Your task to perform on an android device: install app "Skype" Image 0: 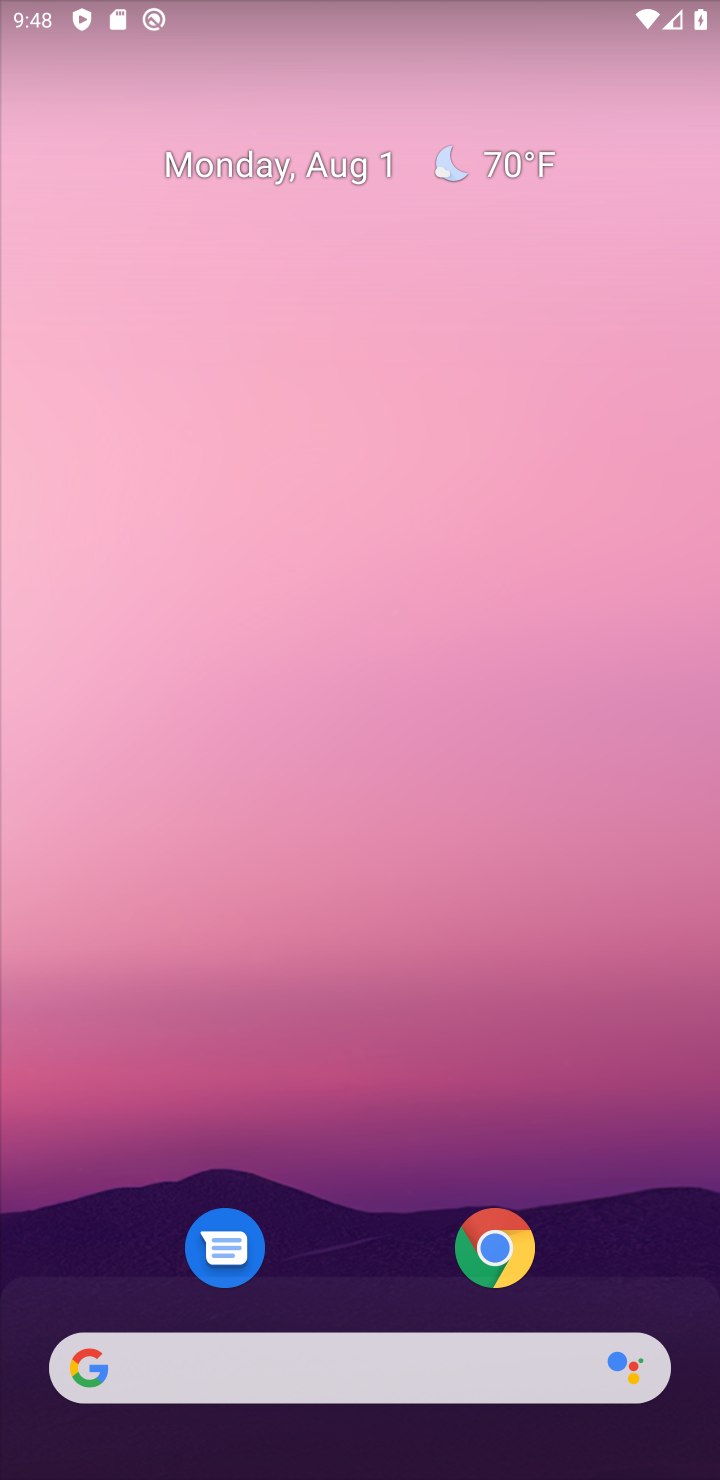
Step 0: drag from (636, 897) to (674, 122)
Your task to perform on an android device: install app "Skype" Image 1: 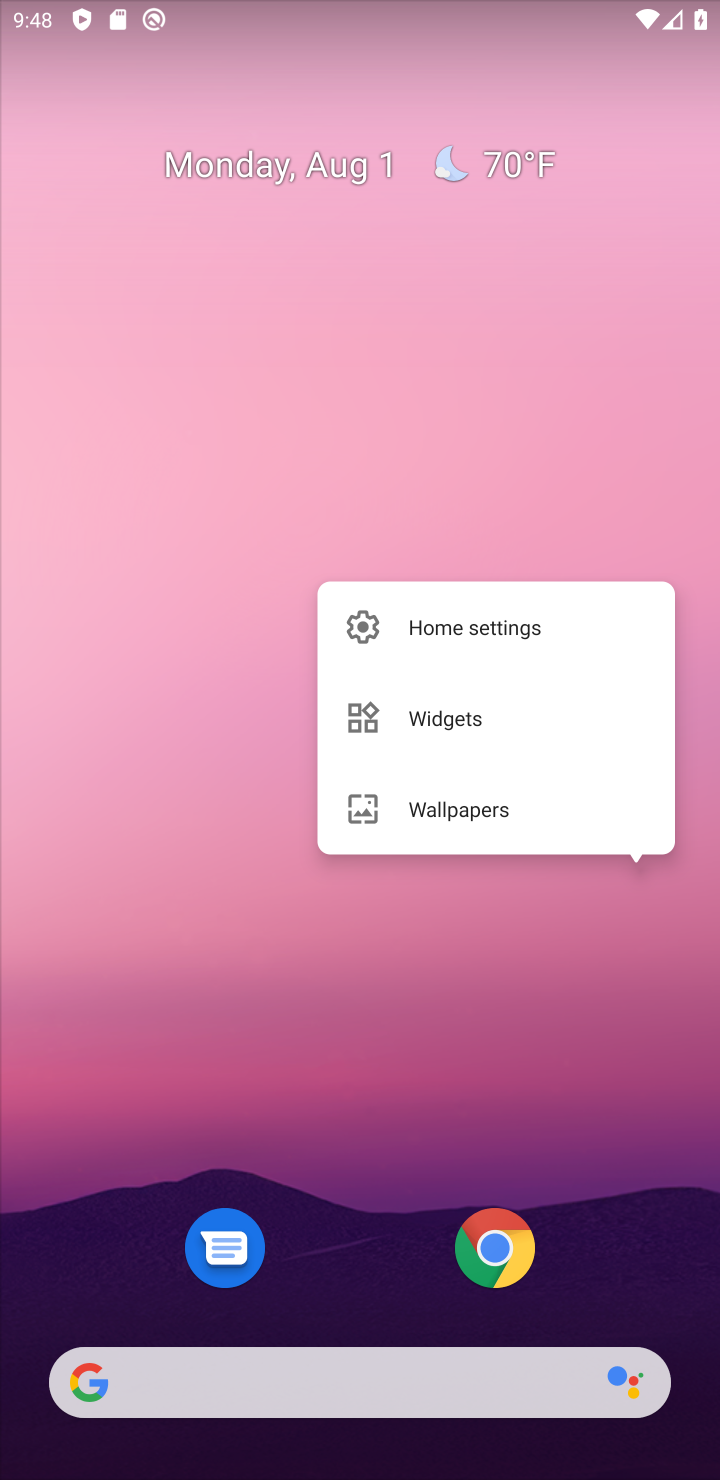
Step 1: click (386, 1189)
Your task to perform on an android device: install app "Skype" Image 2: 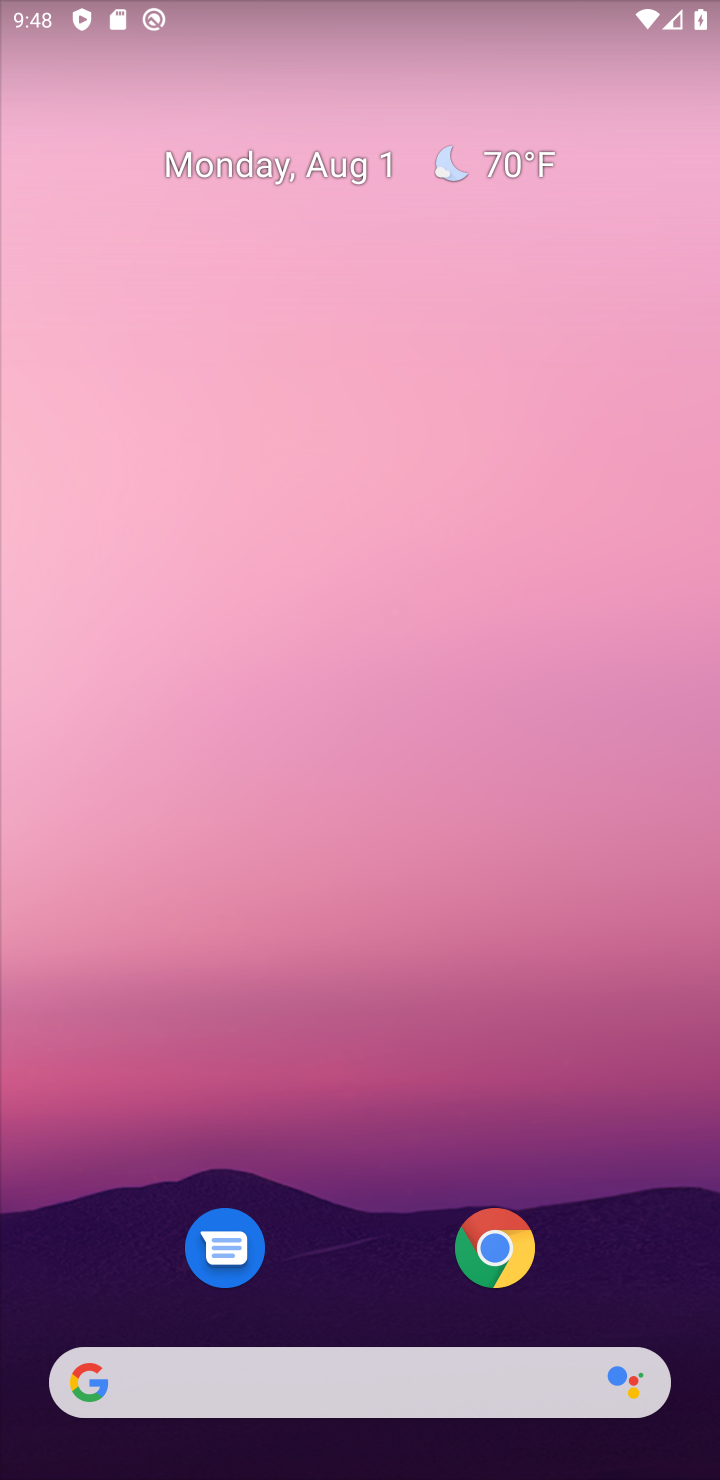
Step 2: drag from (341, 1301) to (580, 98)
Your task to perform on an android device: install app "Skype" Image 3: 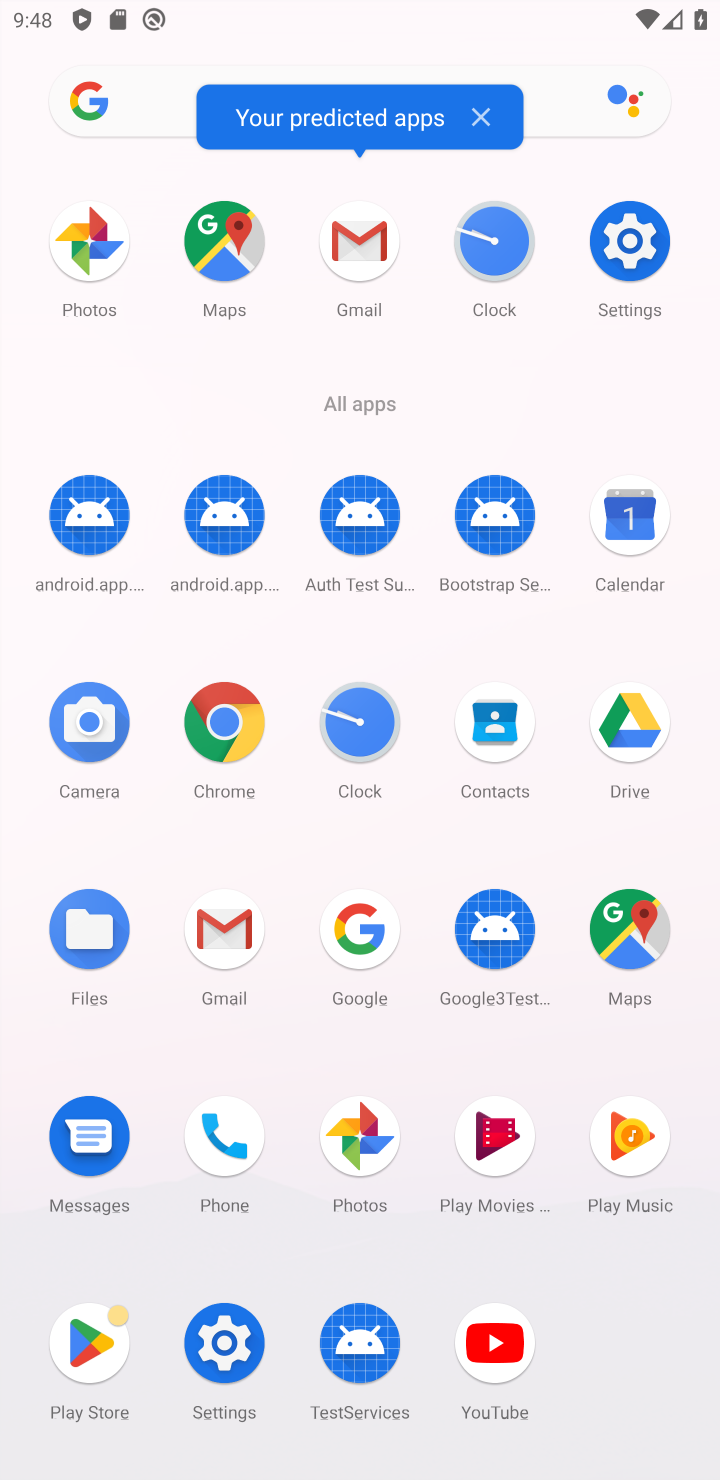
Step 3: click (74, 1334)
Your task to perform on an android device: install app "Skype" Image 4: 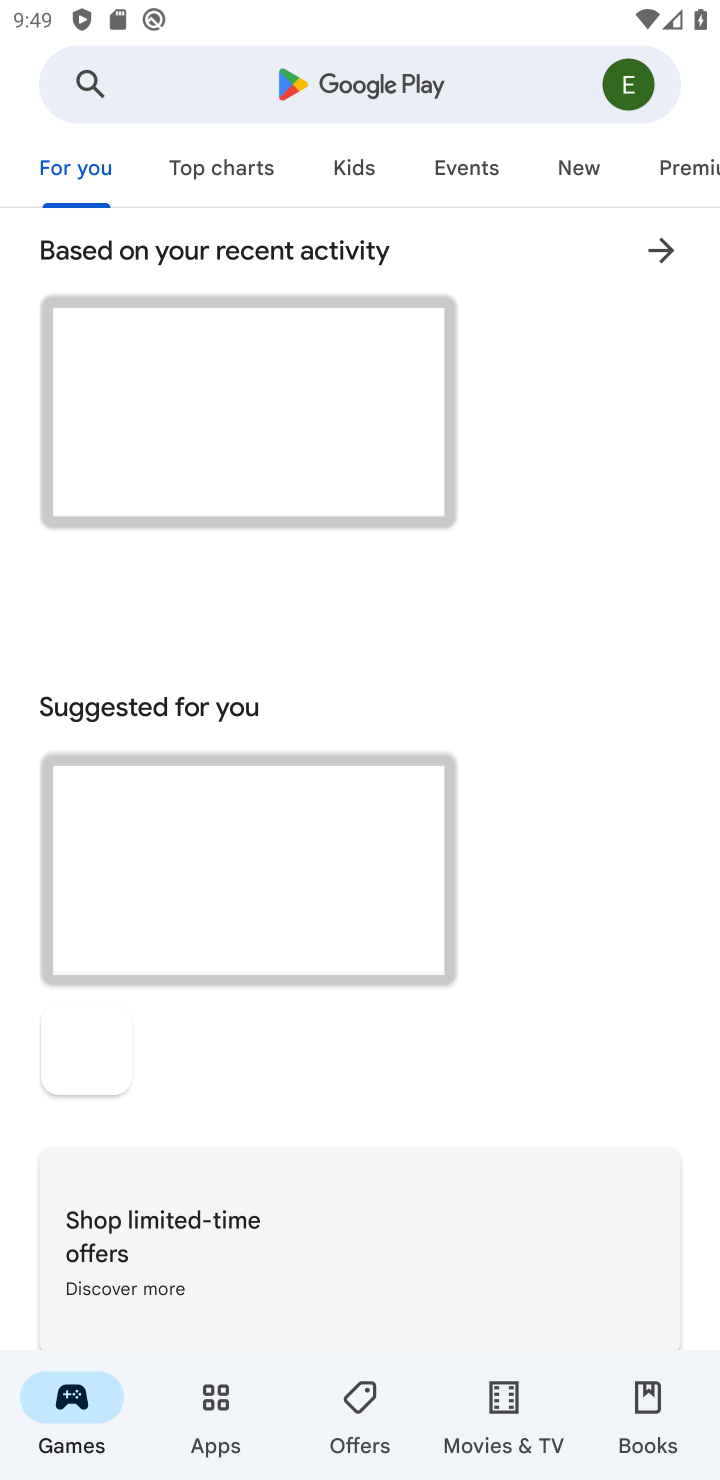
Step 4: click (469, 87)
Your task to perform on an android device: install app "Skype" Image 5: 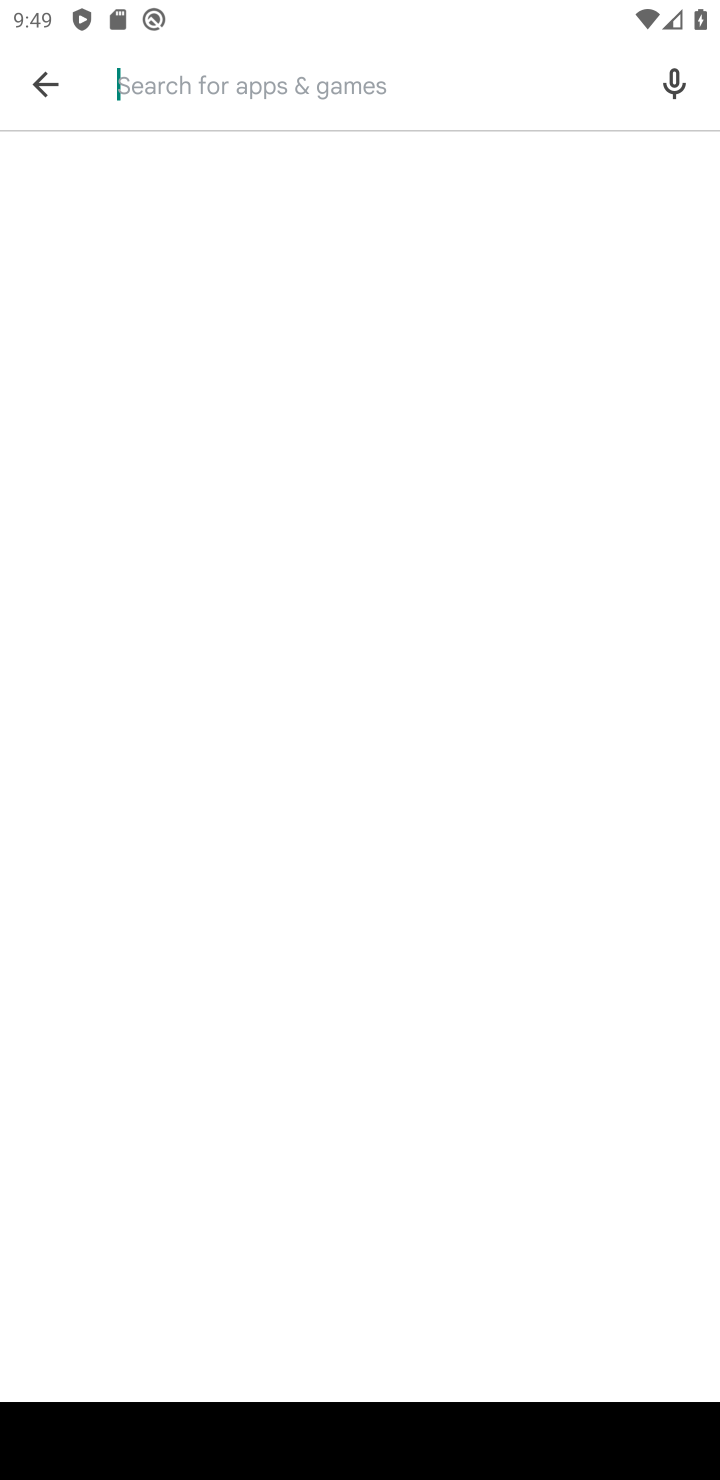
Step 5: type "Skype"
Your task to perform on an android device: install app "Skype" Image 6: 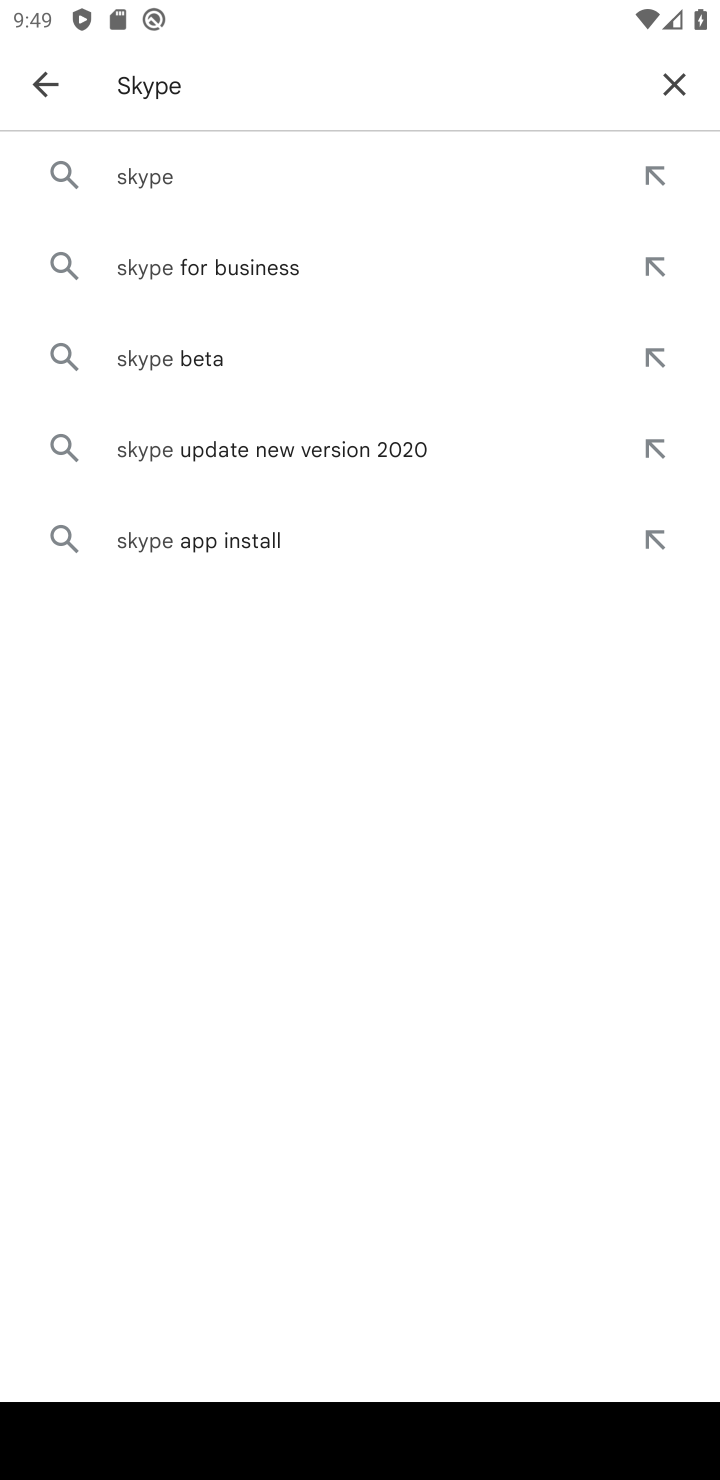
Step 6: click (341, 171)
Your task to perform on an android device: install app "Skype" Image 7: 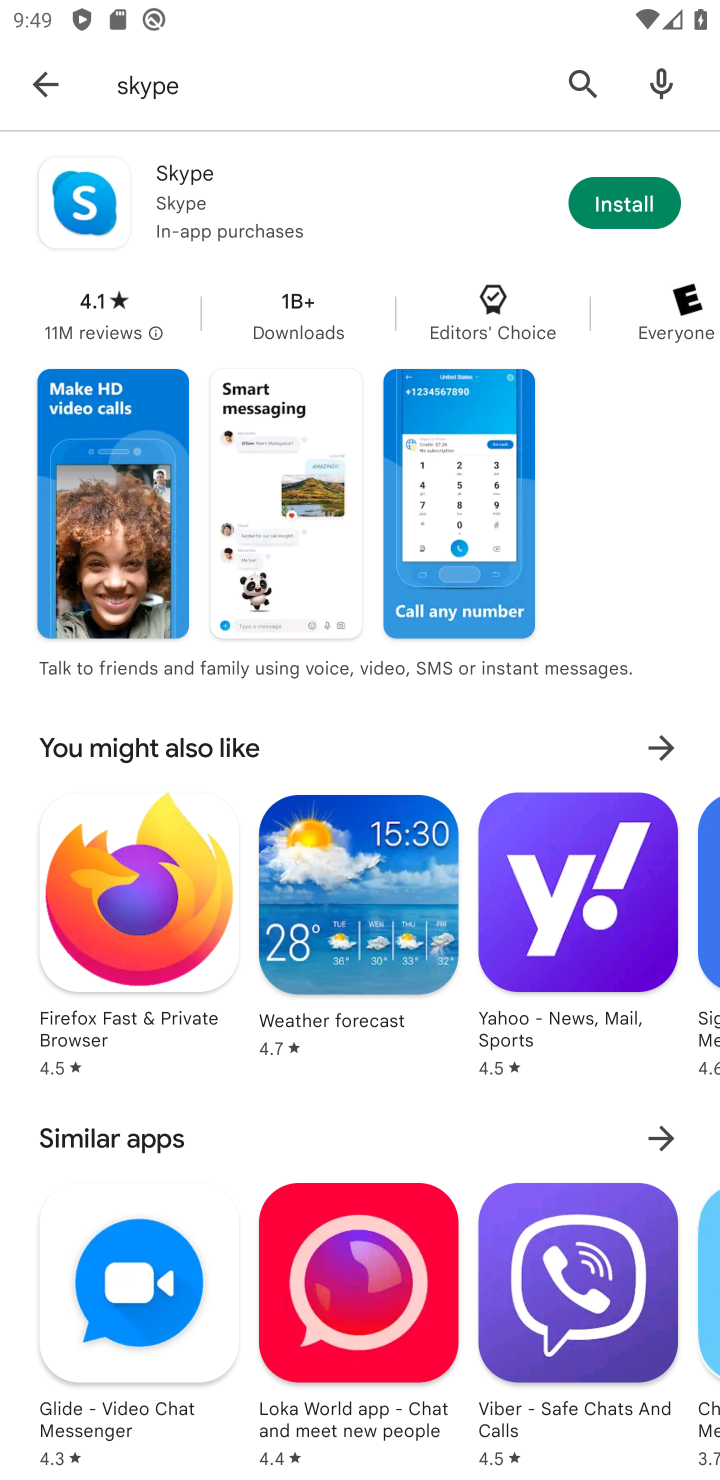
Step 7: click (640, 202)
Your task to perform on an android device: install app "Skype" Image 8: 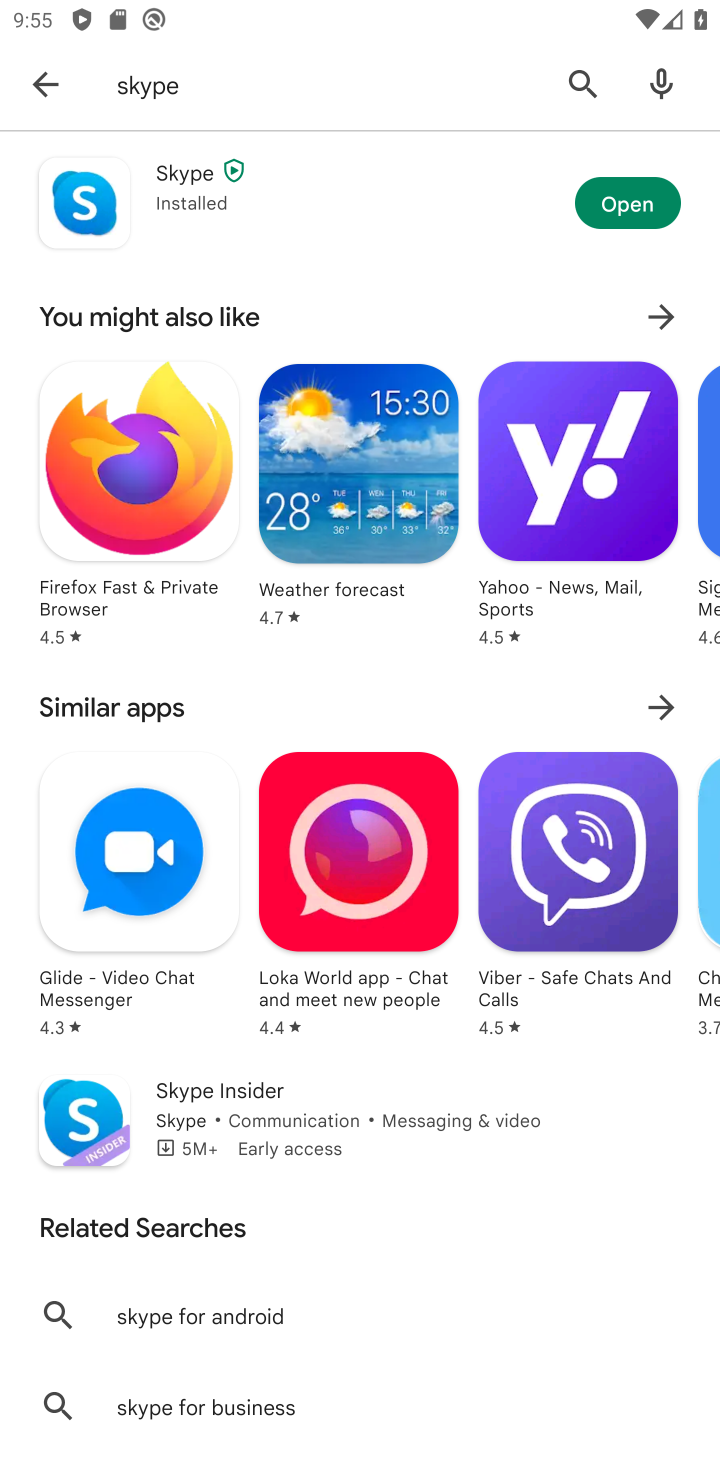
Step 8: task complete